Your task to perform on an android device: see creations saved in the google photos Image 0: 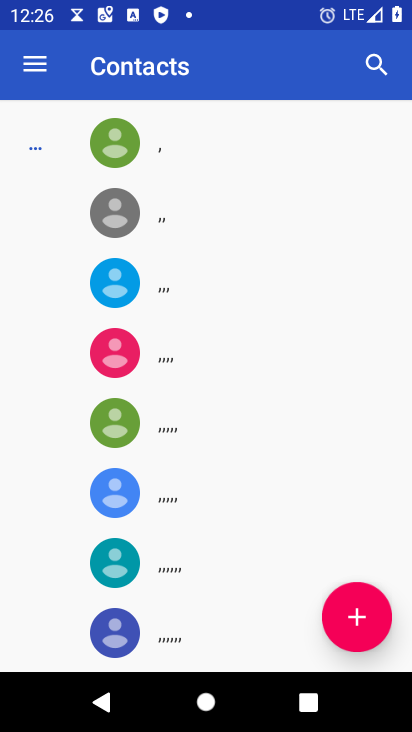
Step 0: press home button
Your task to perform on an android device: see creations saved in the google photos Image 1: 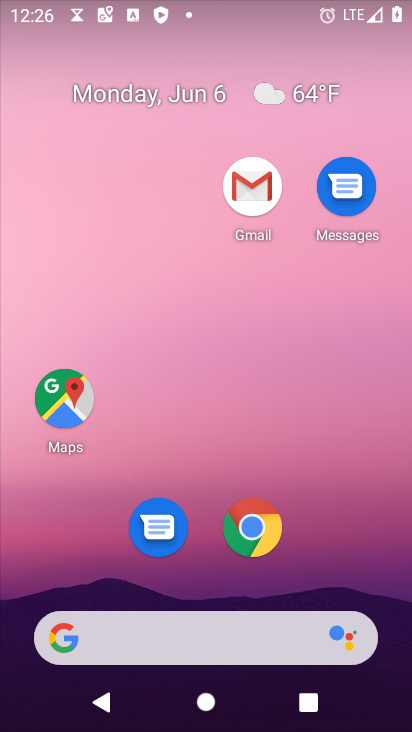
Step 1: drag from (318, 565) to (210, 89)
Your task to perform on an android device: see creations saved in the google photos Image 2: 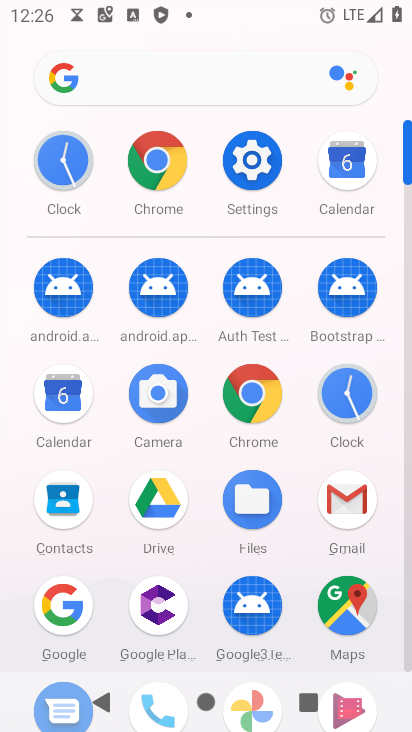
Step 2: drag from (297, 641) to (298, 193)
Your task to perform on an android device: see creations saved in the google photos Image 3: 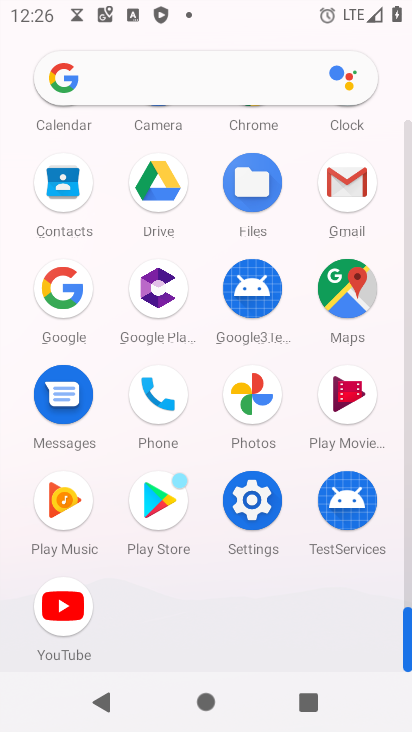
Step 3: click (260, 388)
Your task to perform on an android device: see creations saved in the google photos Image 4: 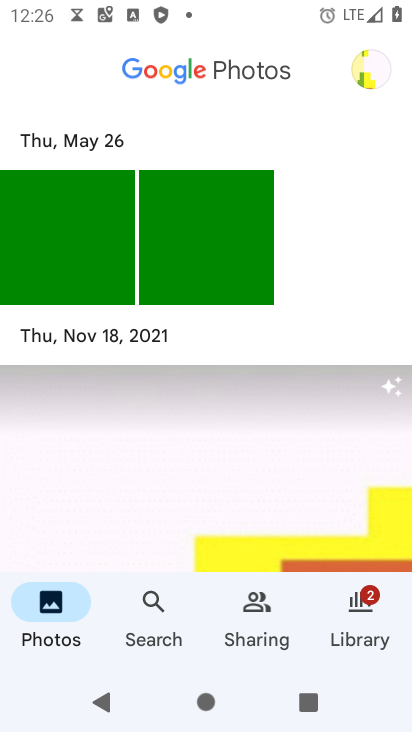
Step 4: click (147, 598)
Your task to perform on an android device: see creations saved in the google photos Image 5: 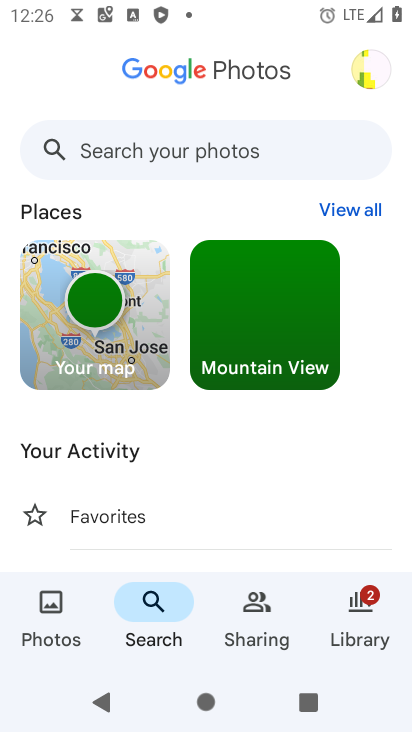
Step 5: drag from (204, 515) to (265, 145)
Your task to perform on an android device: see creations saved in the google photos Image 6: 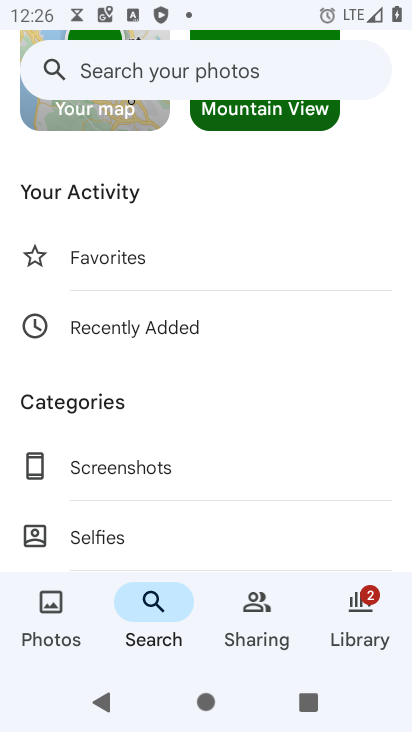
Step 6: drag from (177, 501) to (246, 224)
Your task to perform on an android device: see creations saved in the google photos Image 7: 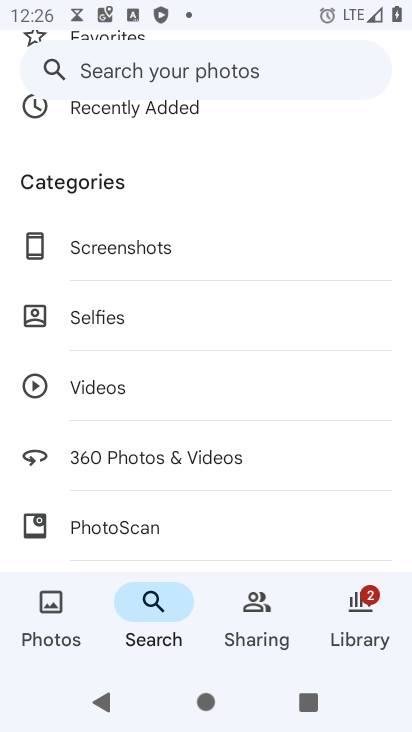
Step 7: drag from (197, 500) to (245, 199)
Your task to perform on an android device: see creations saved in the google photos Image 8: 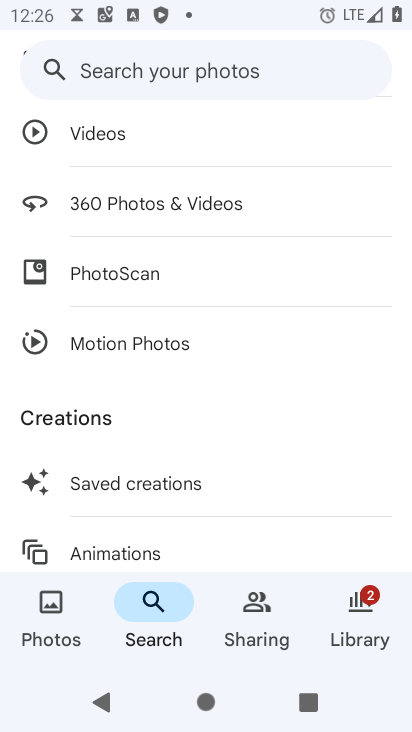
Step 8: click (183, 481)
Your task to perform on an android device: see creations saved in the google photos Image 9: 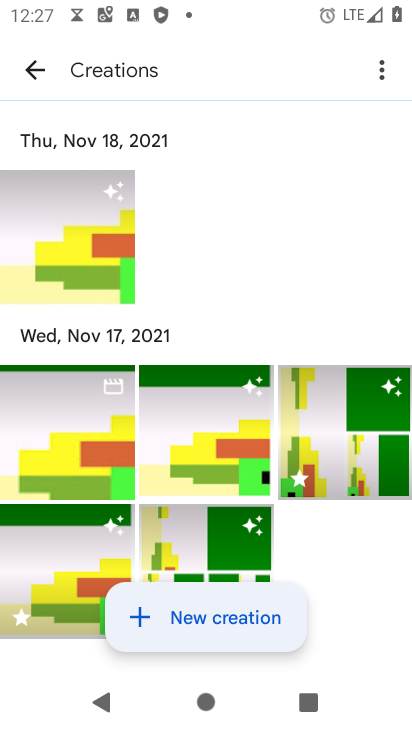
Step 9: task complete